Your task to perform on an android device: Open Google Chrome Image 0: 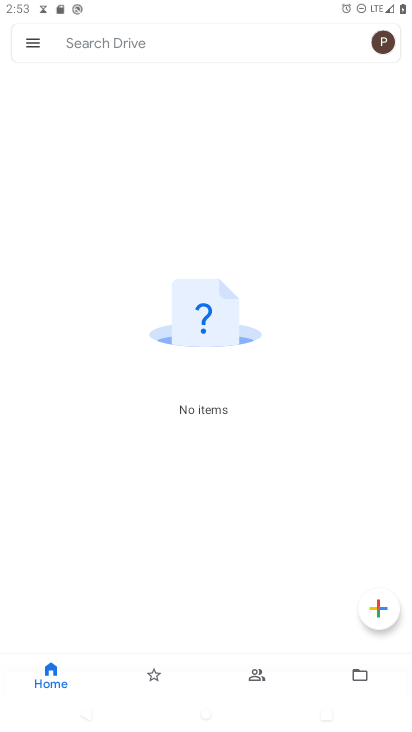
Step 0: press home button
Your task to perform on an android device: Open Google Chrome Image 1: 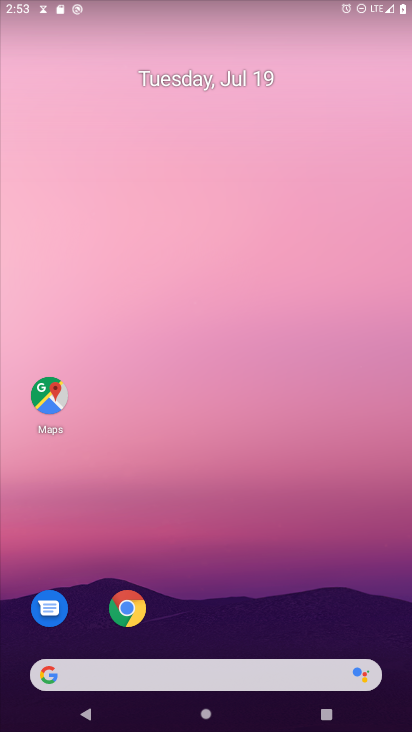
Step 1: drag from (264, 681) to (268, 7)
Your task to perform on an android device: Open Google Chrome Image 2: 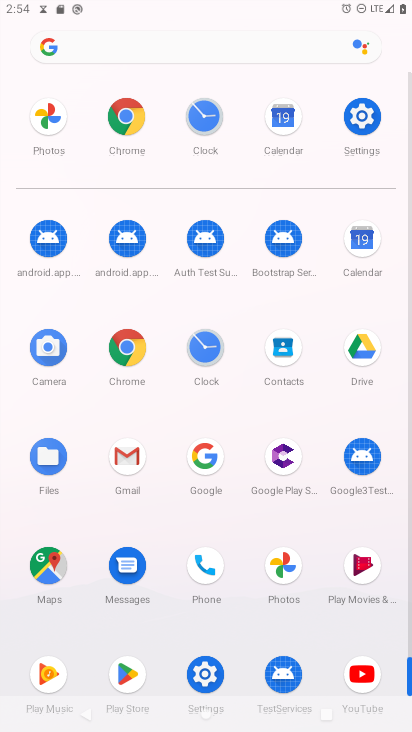
Step 2: click (126, 347)
Your task to perform on an android device: Open Google Chrome Image 3: 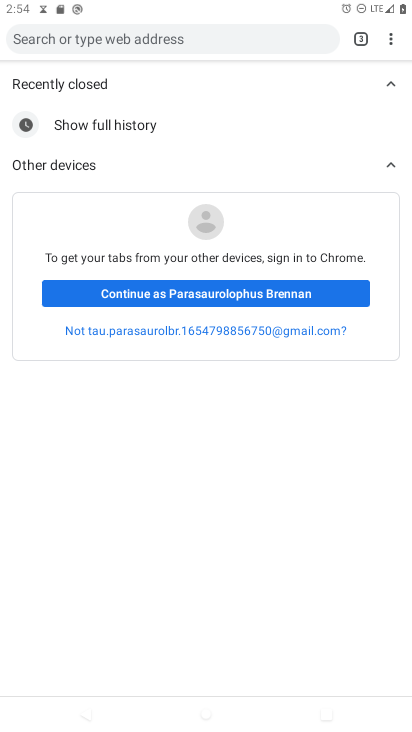
Step 3: task complete